Your task to perform on an android device: What's on my calendar today? Image 0: 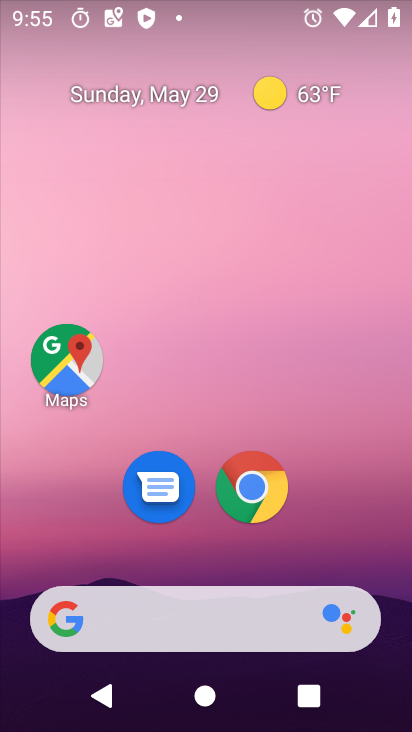
Step 0: drag from (203, 574) to (215, 46)
Your task to perform on an android device: What's on my calendar today? Image 1: 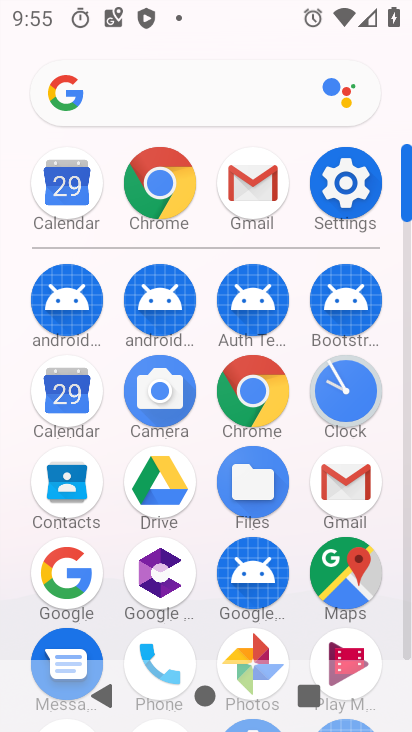
Step 1: click (85, 406)
Your task to perform on an android device: What's on my calendar today? Image 2: 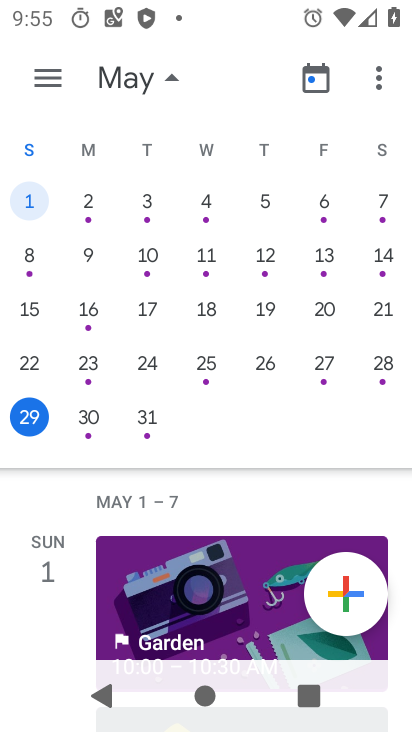
Step 2: click (23, 423)
Your task to perform on an android device: What's on my calendar today? Image 3: 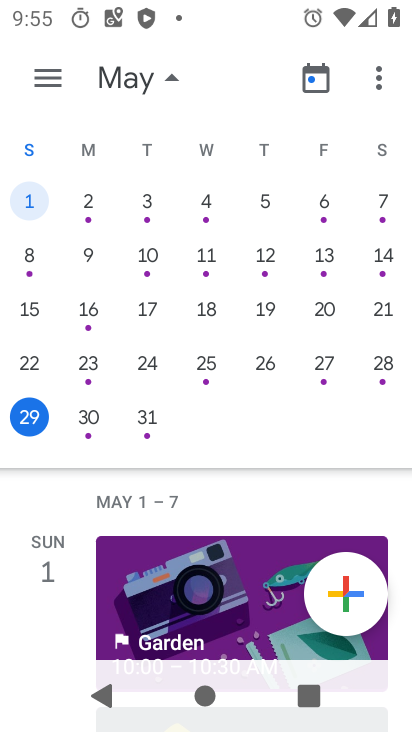
Step 3: click (41, 411)
Your task to perform on an android device: What's on my calendar today? Image 4: 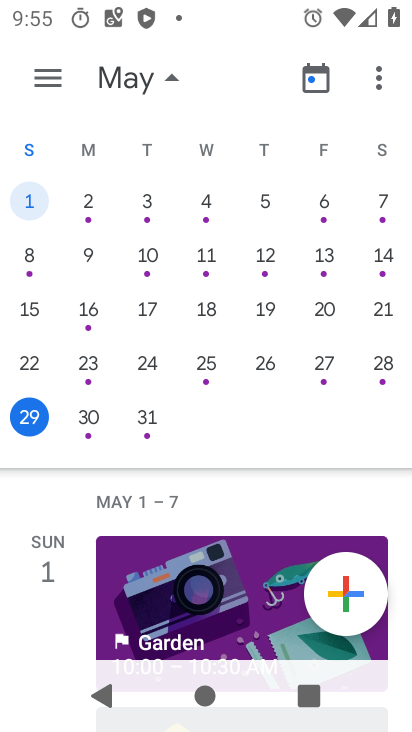
Step 4: click (31, 426)
Your task to perform on an android device: What's on my calendar today? Image 5: 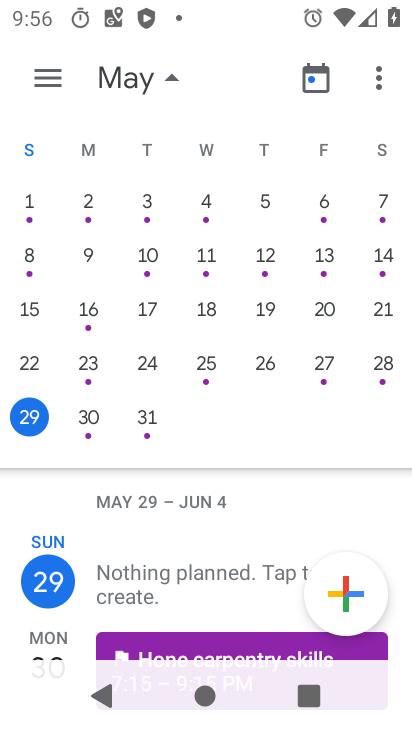
Step 5: task complete